Your task to perform on an android device: uninstall "Microsoft Authenticator" Image 0: 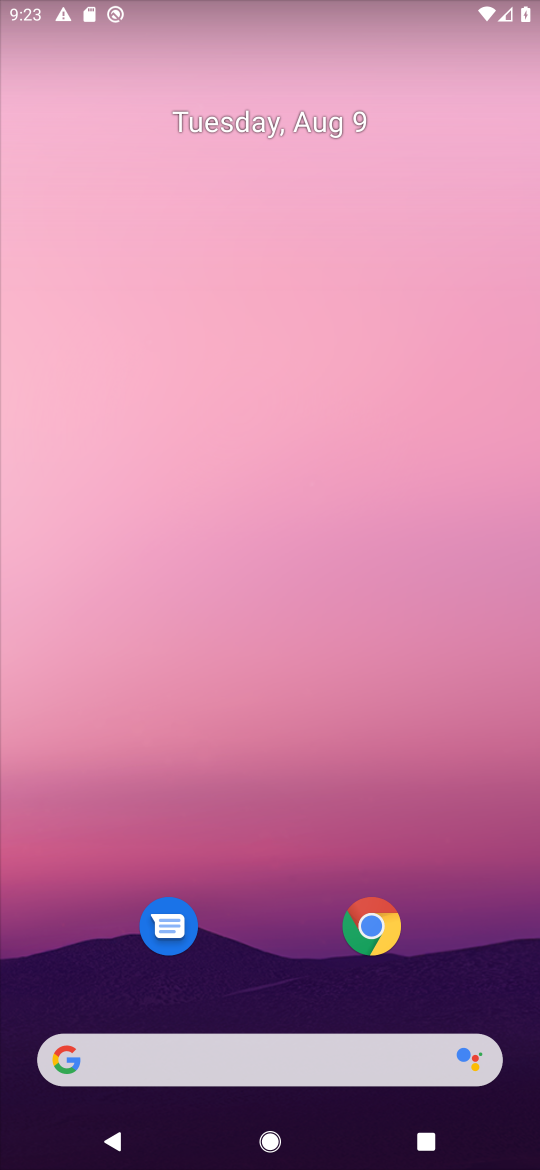
Step 0: click (174, 87)
Your task to perform on an android device: uninstall "Microsoft Authenticator" Image 1: 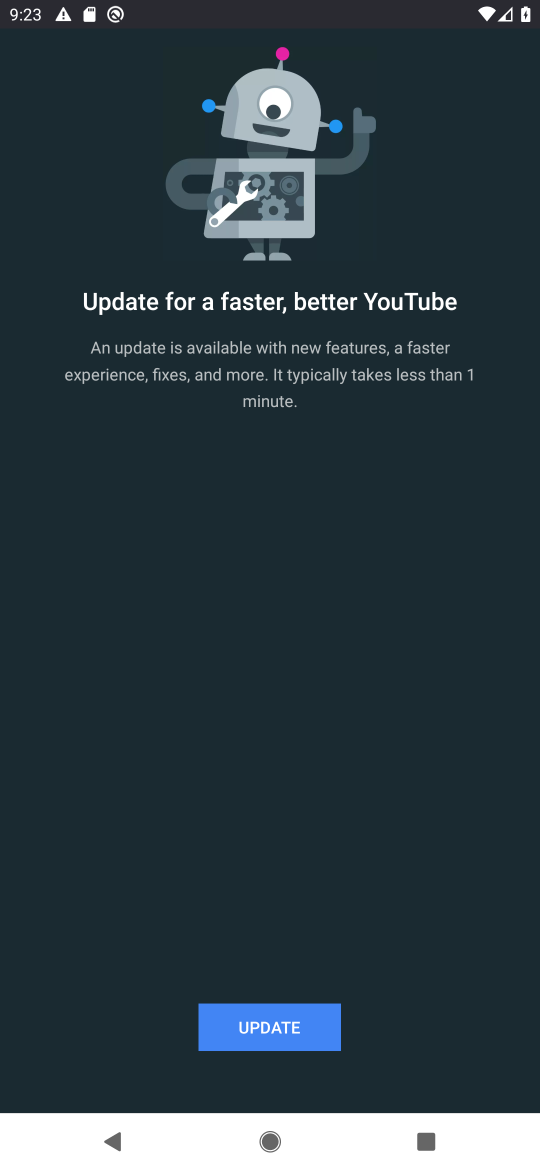
Step 1: press home button
Your task to perform on an android device: uninstall "Microsoft Authenticator" Image 2: 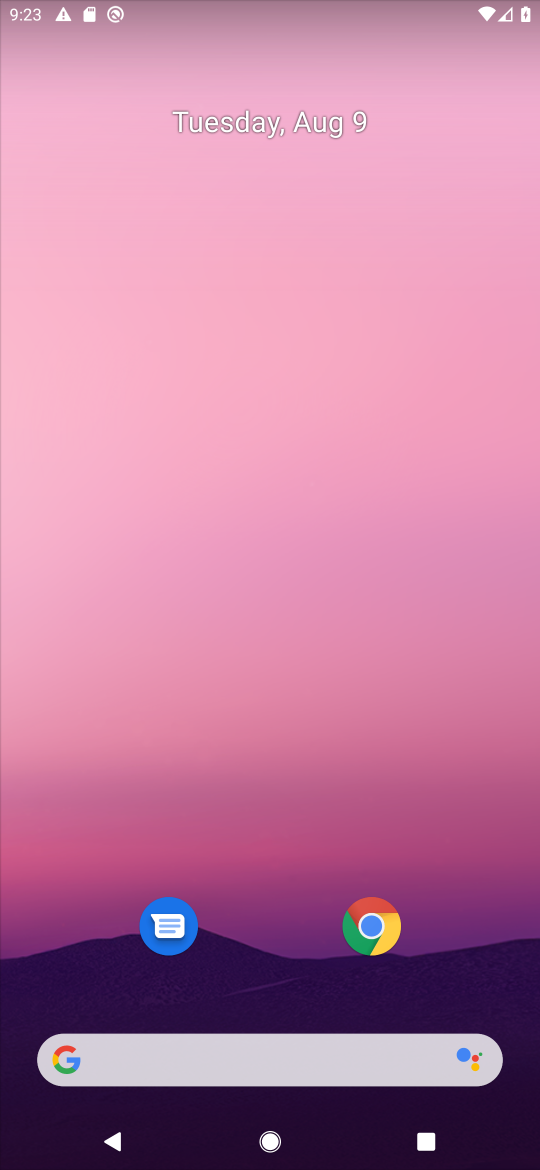
Step 2: drag from (223, 848) to (285, 317)
Your task to perform on an android device: uninstall "Microsoft Authenticator" Image 3: 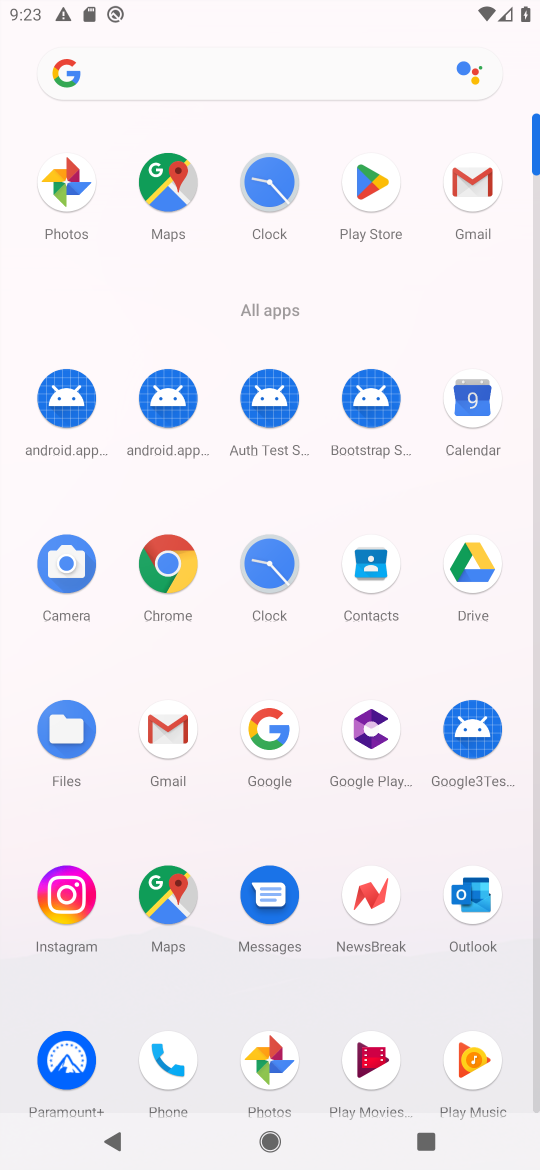
Step 3: click (352, 156)
Your task to perform on an android device: uninstall "Microsoft Authenticator" Image 4: 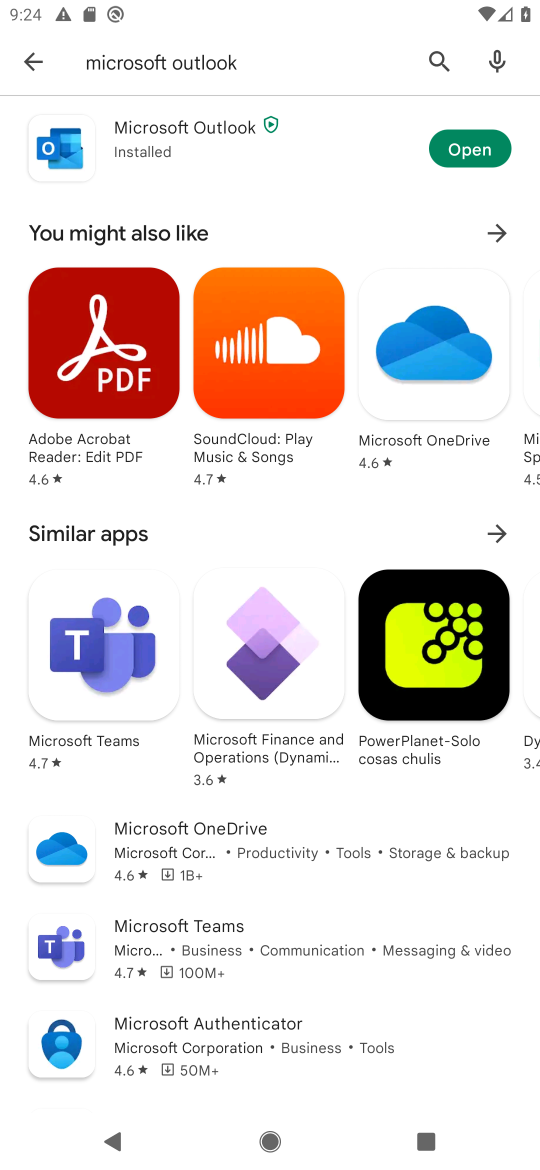
Step 4: click (192, 64)
Your task to perform on an android device: uninstall "Microsoft Authenticator" Image 5: 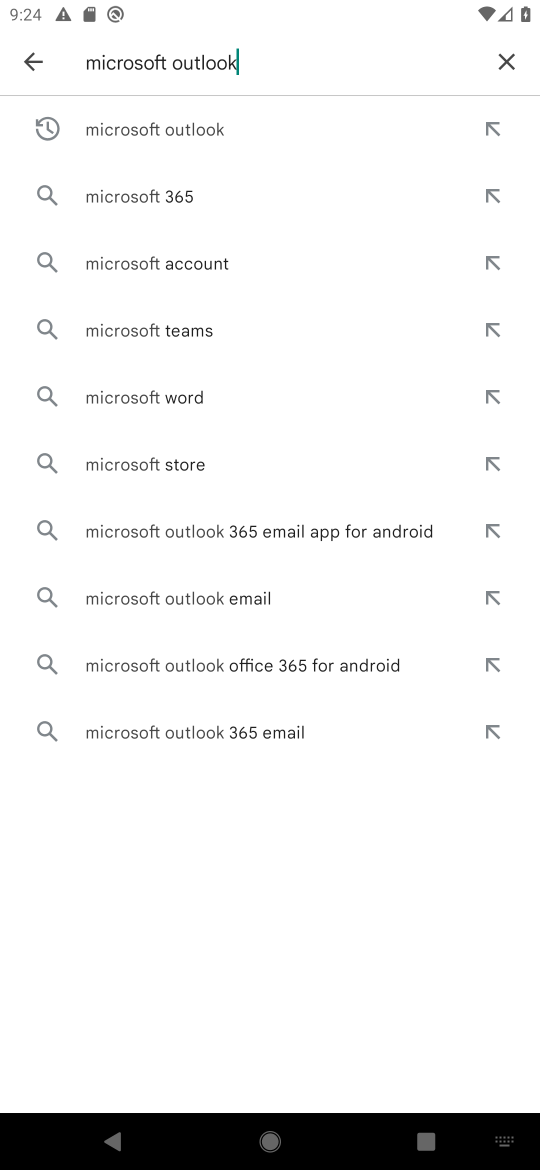
Step 5: click (209, 61)
Your task to perform on an android device: uninstall "Microsoft Authenticator" Image 6: 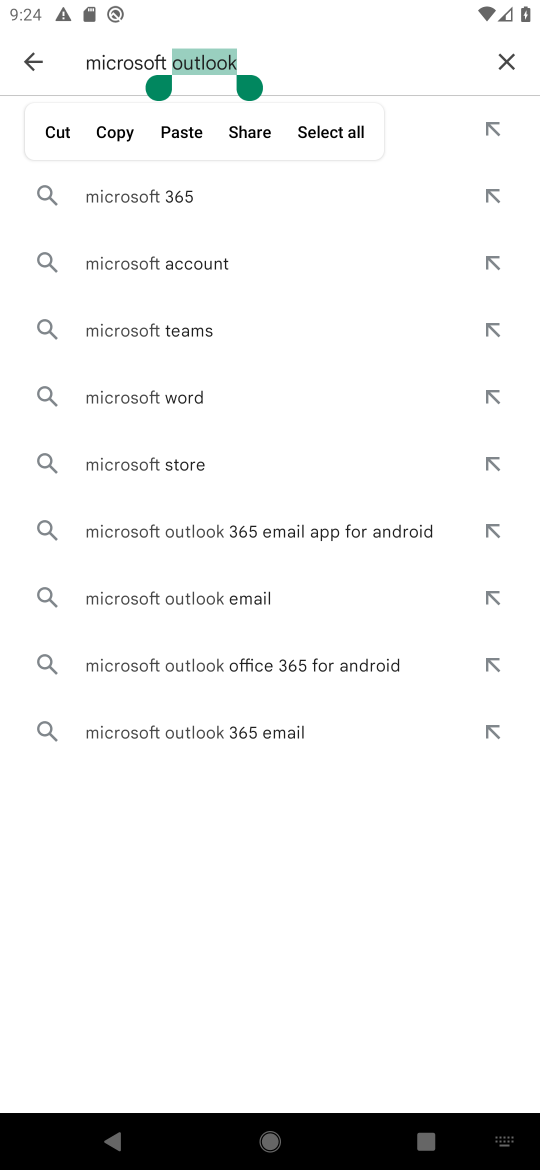
Step 6: type "Authenticator"
Your task to perform on an android device: uninstall "Microsoft Authenticator" Image 7: 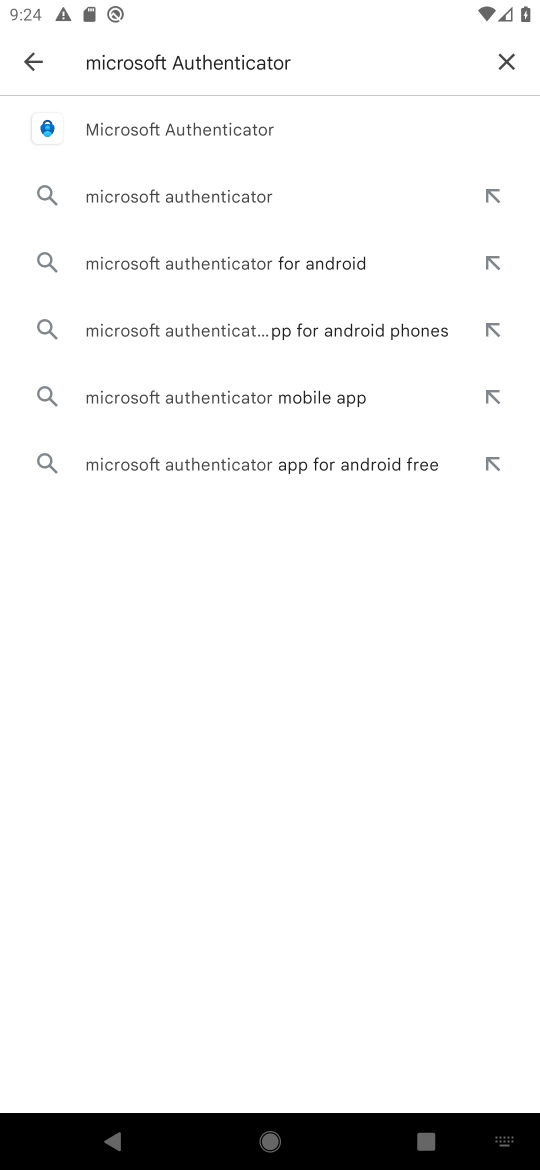
Step 7: click (195, 125)
Your task to perform on an android device: uninstall "Microsoft Authenticator" Image 8: 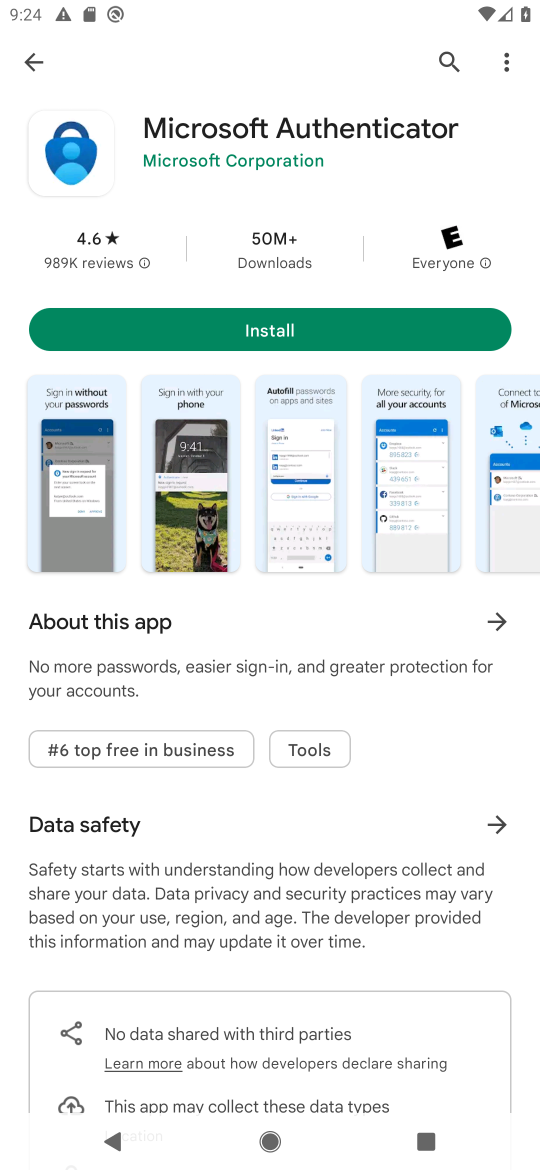
Step 8: task complete